Your task to perform on an android device: turn vacation reply on in the gmail app Image 0: 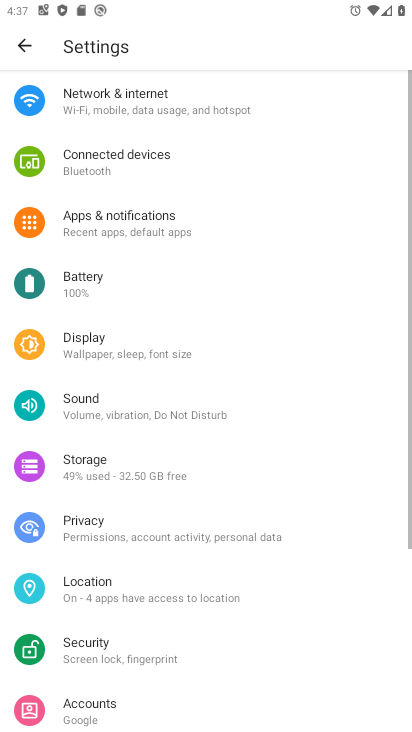
Step 0: press home button
Your task to perform on an android device: turn vacation reply on in the gmail app Image 1: 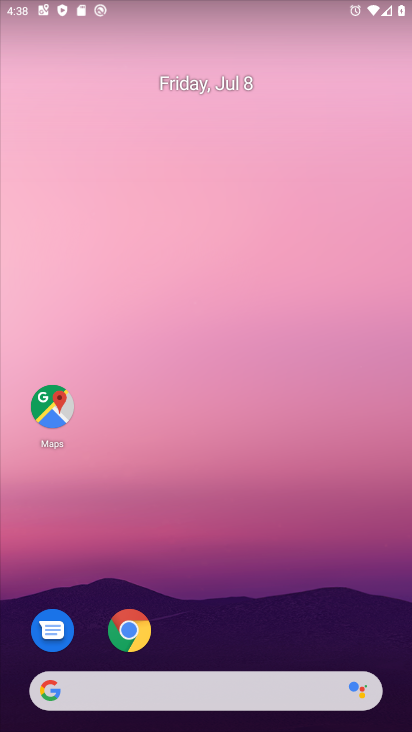
Step 1: drag from (218, 684) to (270, 55)
Your task to perform on an android device: turn vacation reply on in the gmail app Image 2: 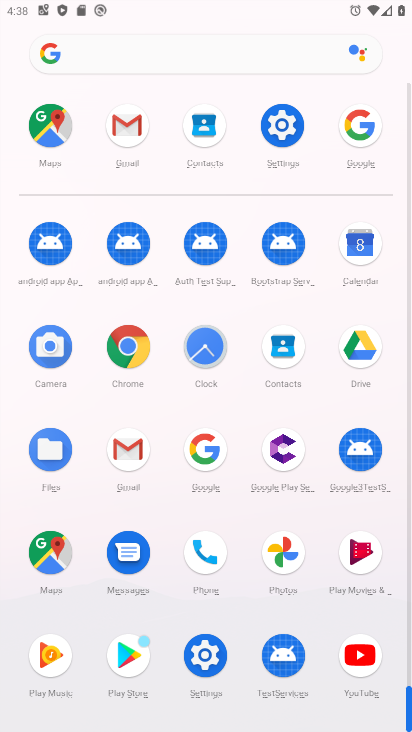
Step 2: click (126, 122)
Your task to perform on an android device: turn vacation reply on in the gmail app Image 3: 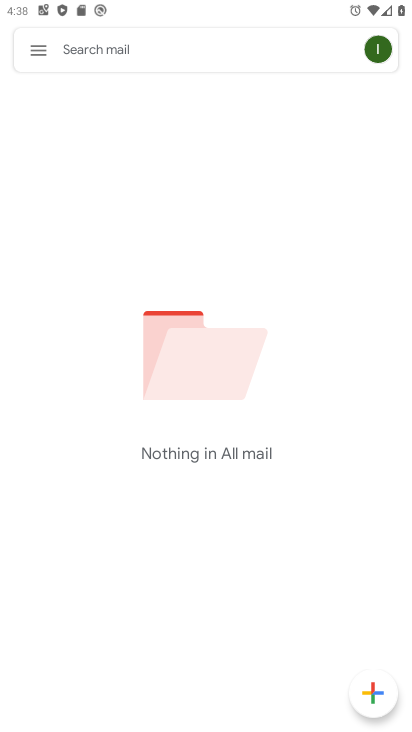
Step 3: click (40, 51)
Your task to perform on an android device: turn vacation reply on in the gmail app Image 4: 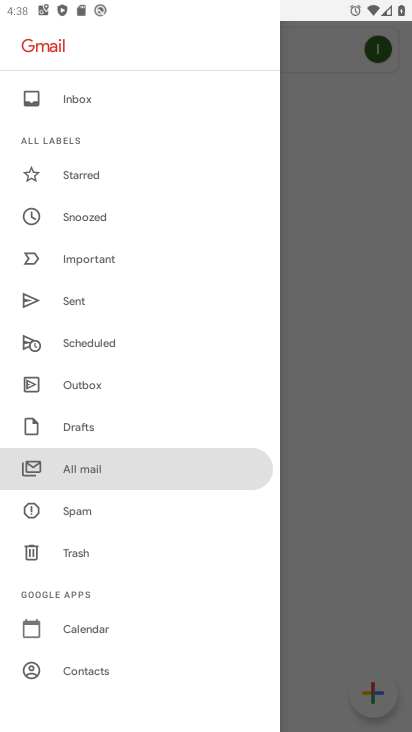
Step 4: drag from (78, 534) to (118, 326)
Your task to perform on an android device: turn vacation reply on in the gmail app Image 5: 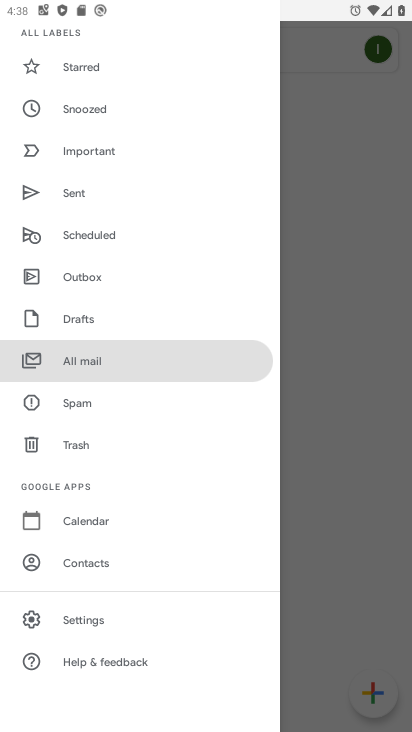
Step 5: click (90, 618)
Your task to perform on an android device: turn vacation reply on in the gmail app Image 6: 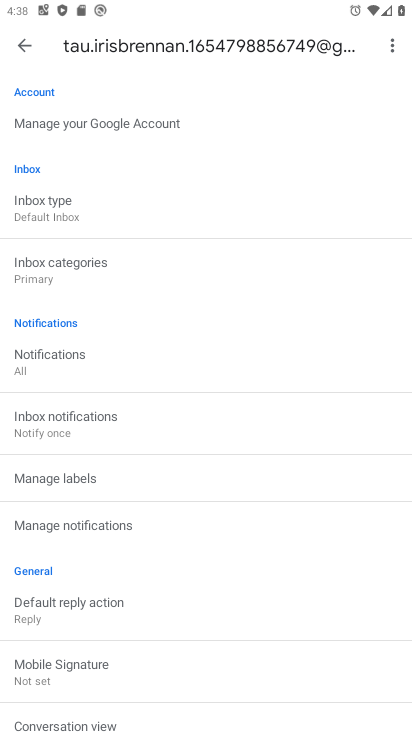
Step 6: drag from (68, 563) to (173, 439)
Your task to perform on an android device: turn vacation reply on in the gmail app Image 7: 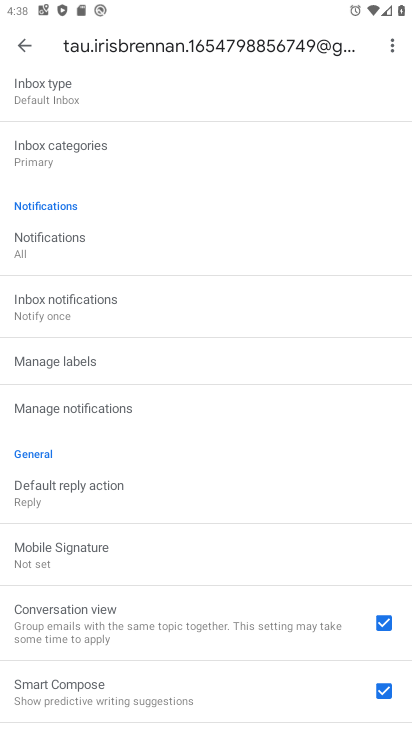
Step 7: drag from (69, 600) to (188, 474)
Your task to perform on an android device: turn vacation reply on in the gmail app Image 8: 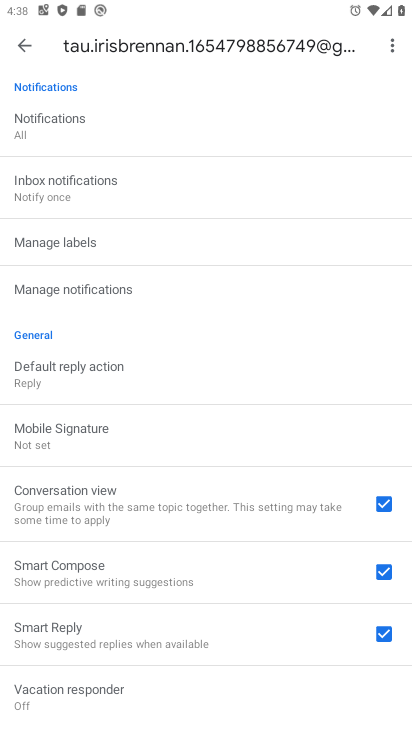
Step 8: drag from (91, 660) to (209, 524)
Your task to perform on an android device: turn vacation reply on in the gmail app Image 9: 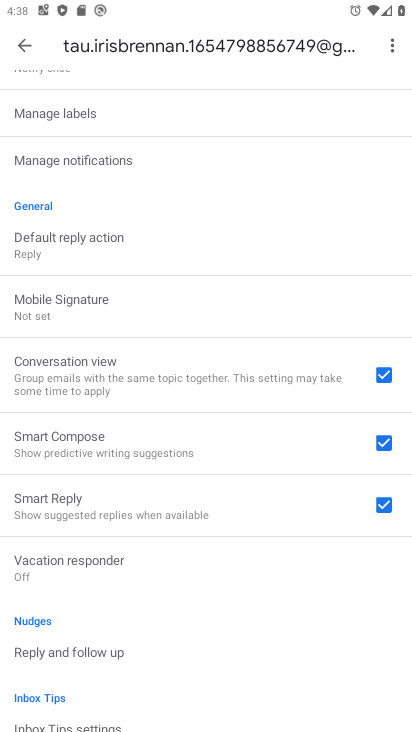
Step 9: click (119, 561)
Your task to perform on an android device: turn vacation reply on in the gmail app Image 10: 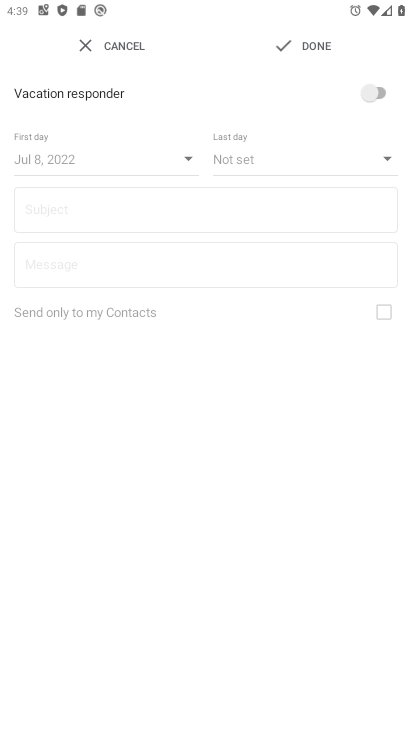
Step 10: click (371, 89)
Your task to perform on an android device: turn vacation reply on in the gmail app Image 11: 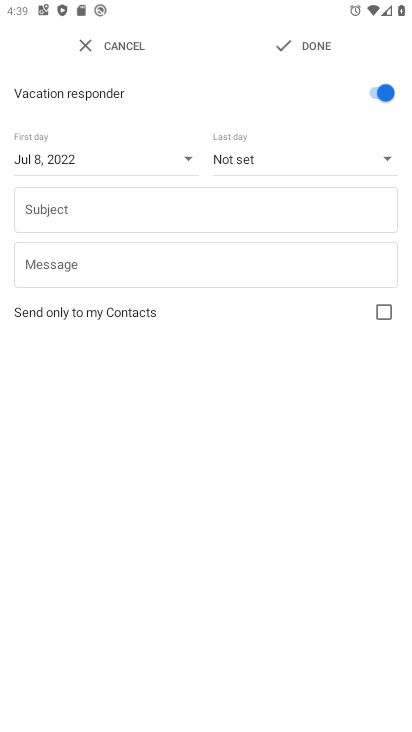
Step 11: click (304, 43)
Your task to perform on an android device: turn vacation reply on in the gmail app Image 12: 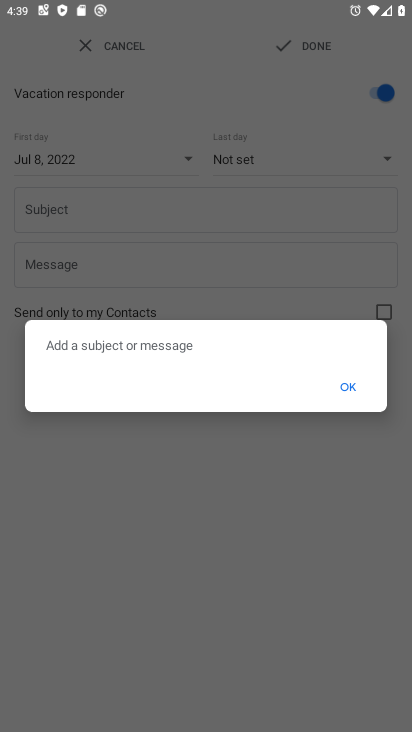
Step 12: click (362, 392)
Your task to perform on an android device: turn vacation reply on in the gmail app Image 13: 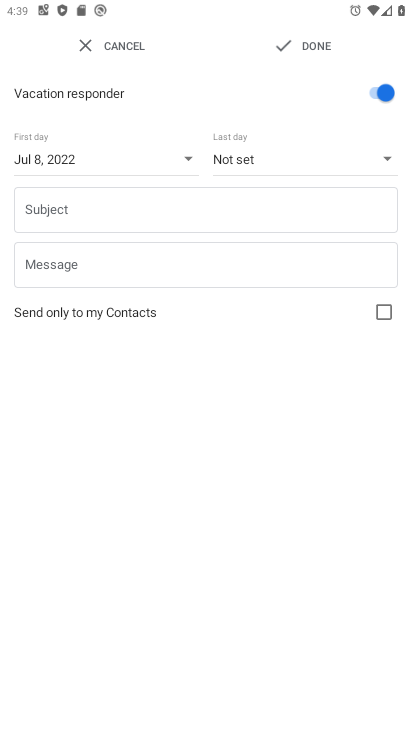
Step 13: task complete